Your task to perform on an android device: Go to Maps Image 0: 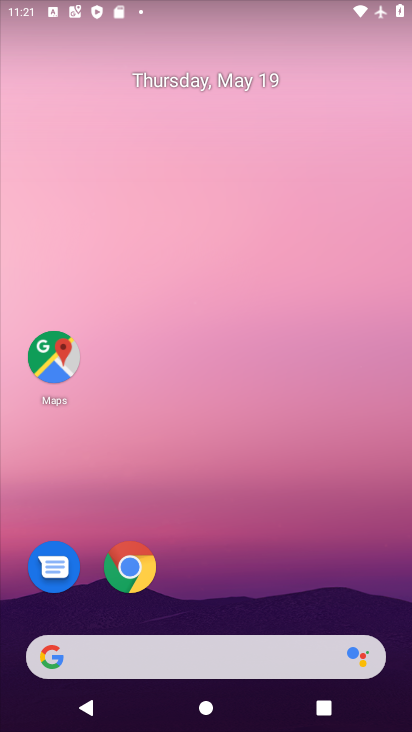
Step 0: click (54, 359)
Your task to perform on an android device: Go to Maps Image 1: 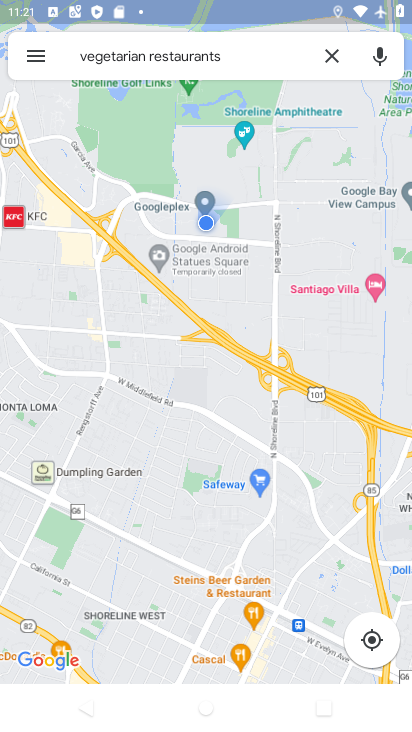
Step 1: click (332, 59)
Your task to perform on an android device: Go to Maps Image 2: 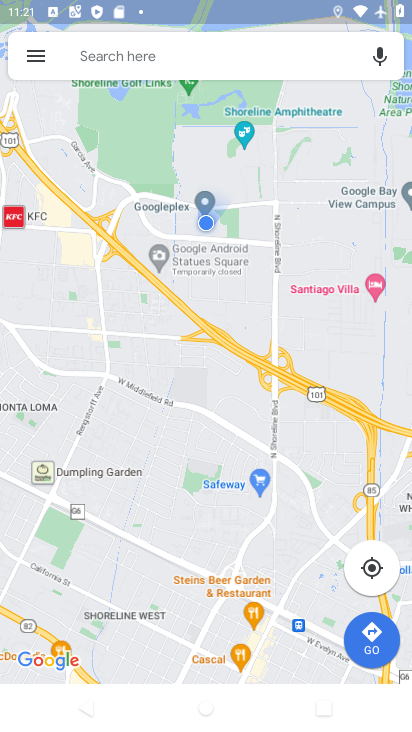
Step 2: task complete